Your task to perform on an android device: turn on bluetooth scan Image 0: 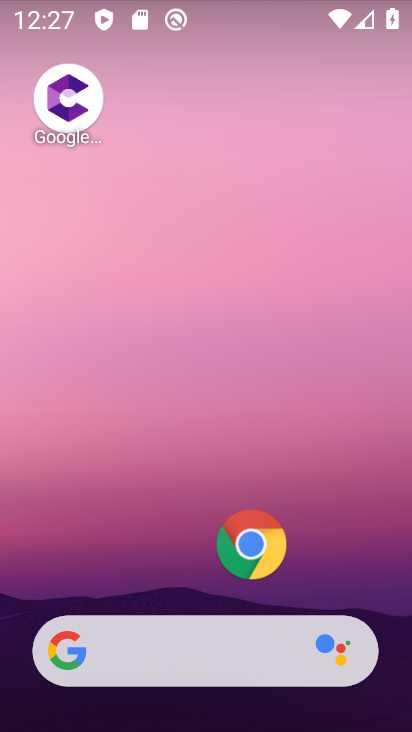
Step 0: drag from (303, 519) to (368, 69)
Your task to perform on an android device: turn on bluetooth scan Image 1: 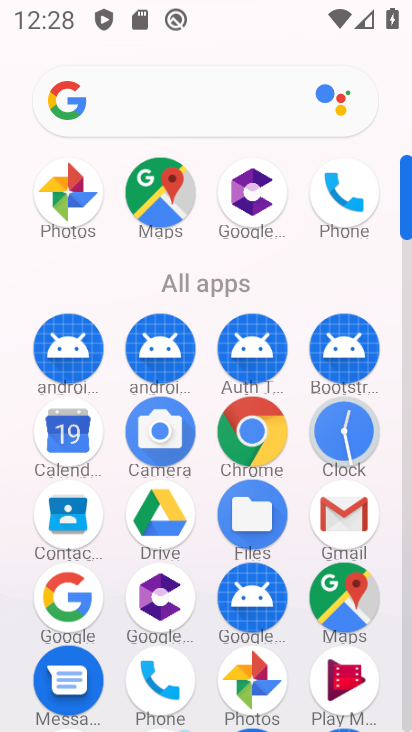
Step 1: drag from (297, 625) to (337, 165)
Your task to perform on an android device: turn on bluetooth scan Image 2: 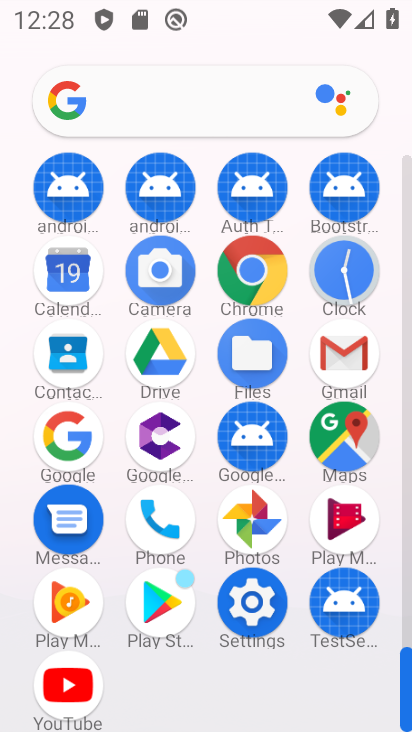
Step 2: click (259, 574)
Your task to perform on an android device: turn on bluetooth scan Image 3: 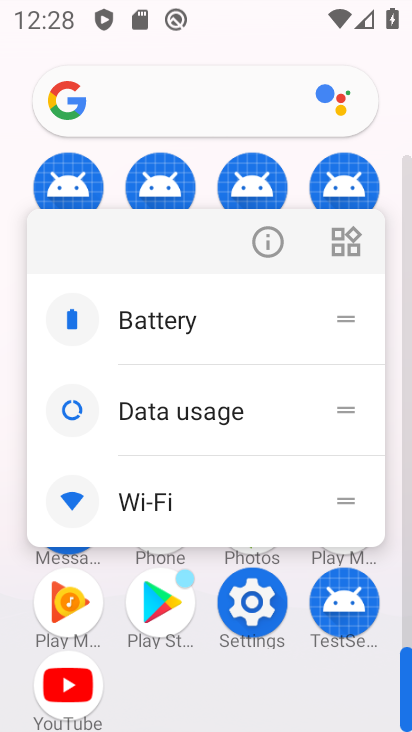
Step 3: click (256, 589)
Your task to perform on an android device: turn on bluetooth scan Image 4: 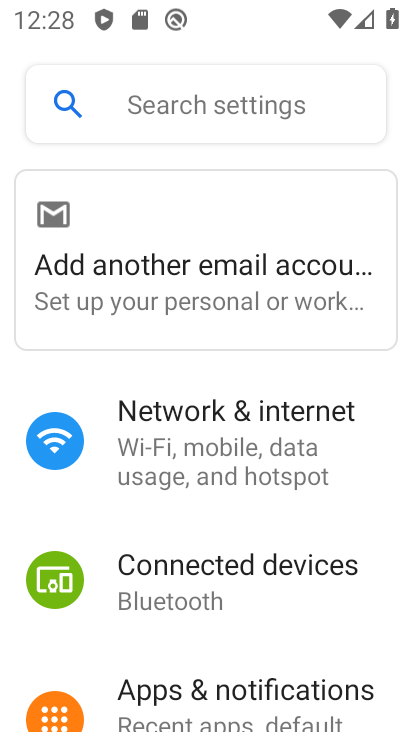
Step 4: click (272, 95)
Your task to perform on an android device: turn on bluetooth scan Image 5: 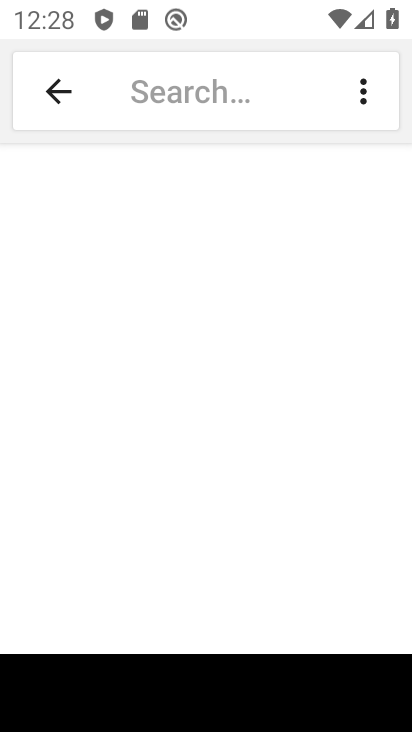
Step 5: click (253, 94)
Your task to perform on an android device: turn on bluetooth scan Image 6: 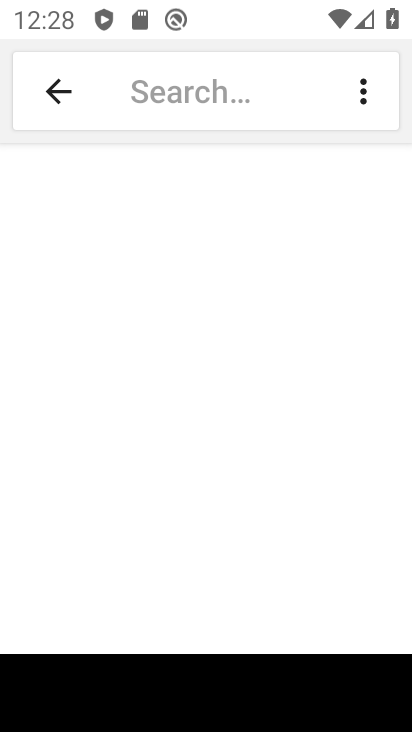
Step 6: type "bluetooth scan"
Your task to perform on an android device: turn on bluetooth scan Image 7: 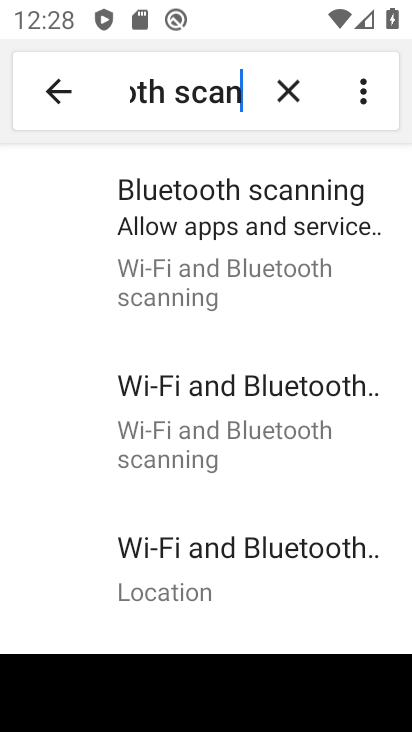
Step 7: click (223, 217)
Your task to perform on an android device: turn on bluetooth scan Image 8: 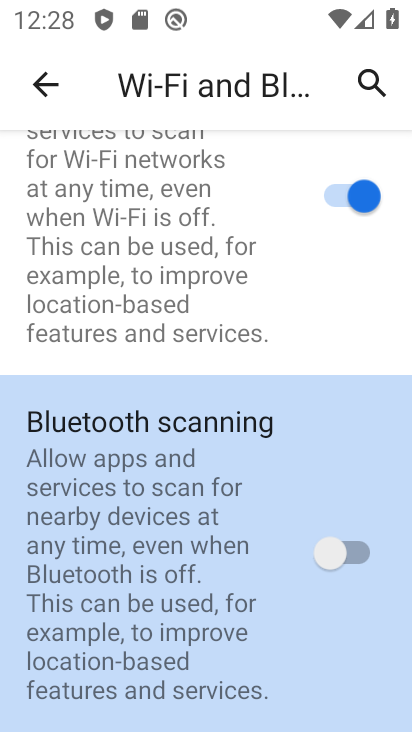
Step 8: click (327, 542)
Your task to perform on an android device: turn on bluetooth scan Image 9: 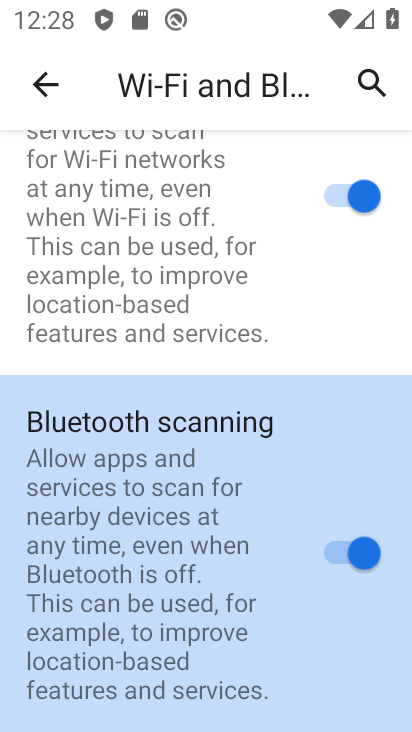
Step 9: task complete